Your task to perform on an android device: visit the assistant section in the google photos Image 0: 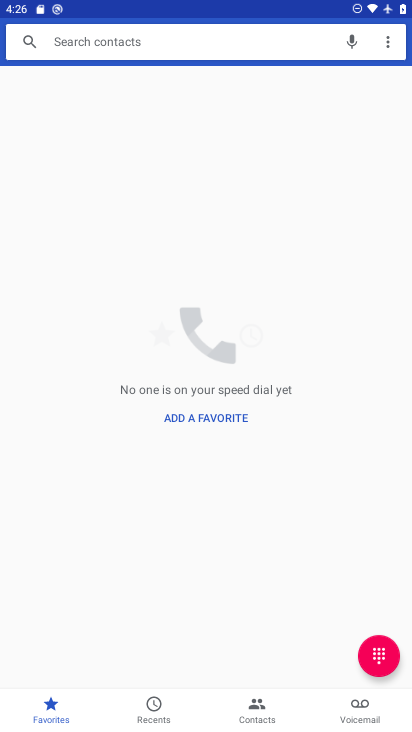
Step 0: press back button
Your task to perform on an android device: visit the assistant section in the google photos Image 1: 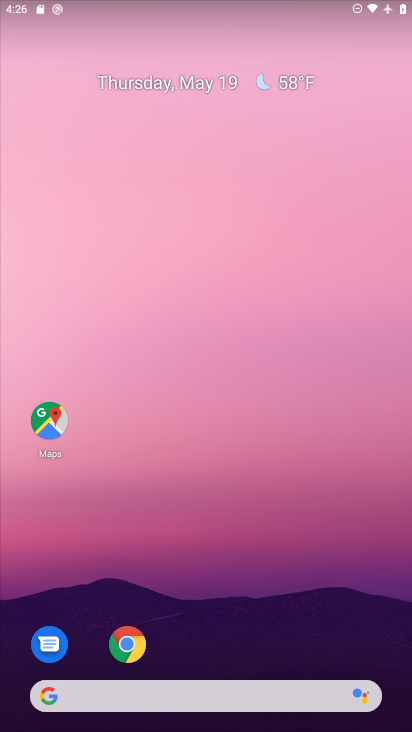
Step 1: drag from (232, 584) to (230, 156)
Your task to perform on an android device: visit the assistant section in the google photos Image 2: 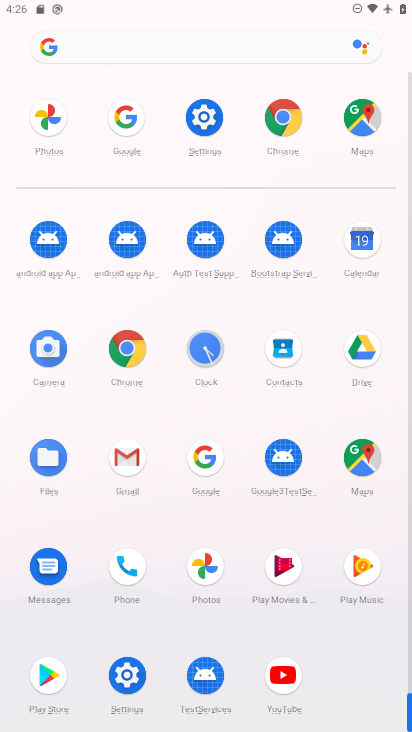
Step 2: drag from (14, 578) to (30, 269)
Your task to perform on an android device: visit the assistant section in the google photos Image 3: 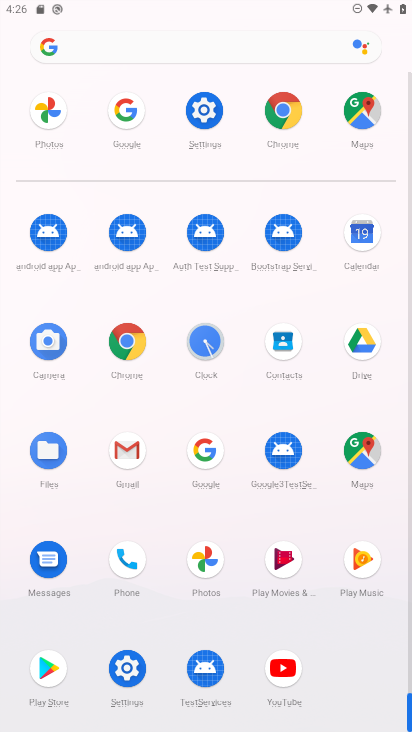
Step 3: click (203, 553)
Your task to perform on an android device: visit the assistant section in the google photos Image 4: 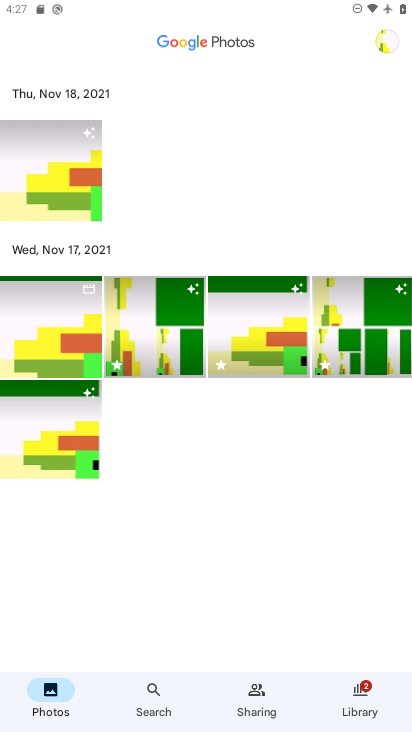
Step 4: task complete